Your task to perform on an android device: Open Google Maps Image 0: 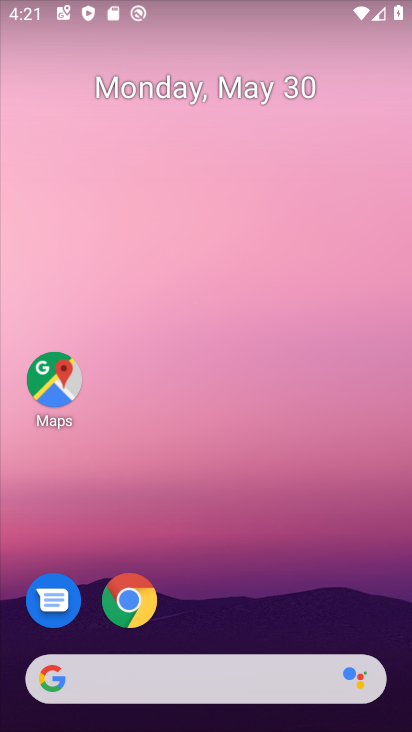
Step 0: click (55, 376)
Your task to perform on an android device: Open Google Maps Image 1: 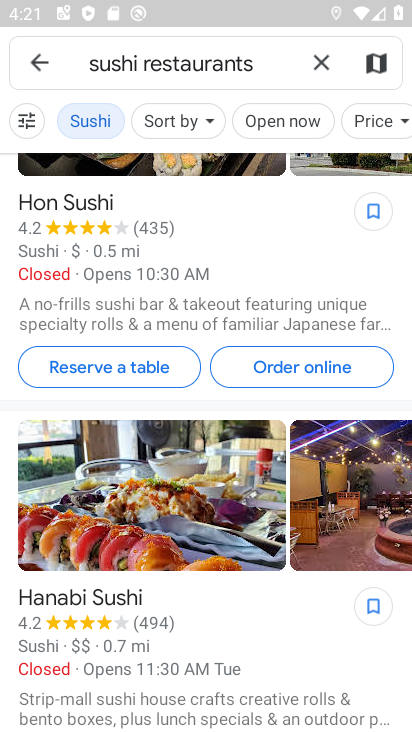
Step 1: click (41, 62)
Your task to perform on an android device: Open Google Maps Image 2: 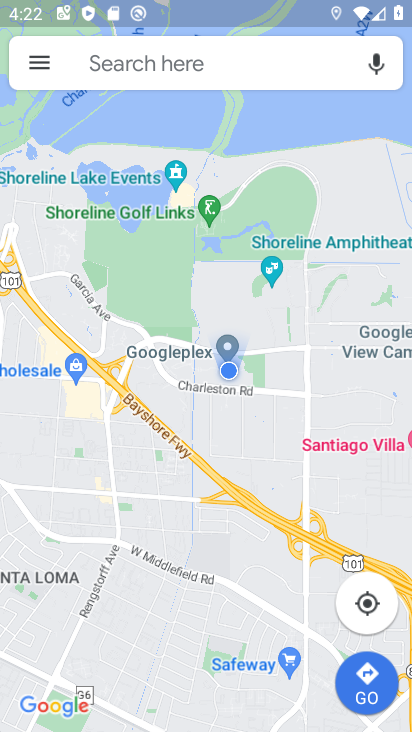
Step 2: task complete